Your task to perform on an android device: Go to accessibility settings Image 0: 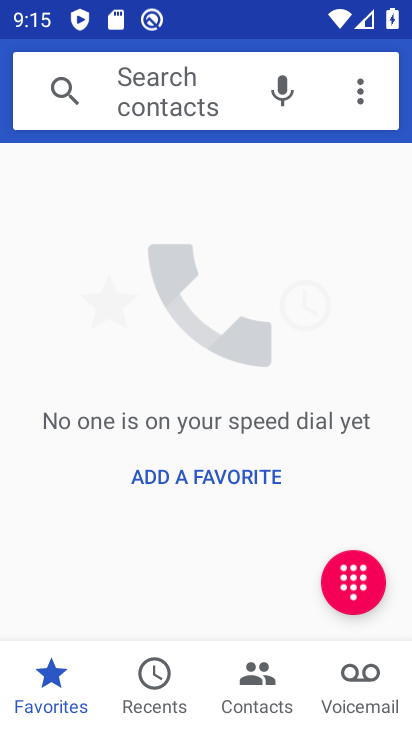
Step 0: press home button
Your task to perform on an android device: Go to accessibility settings Image 1: 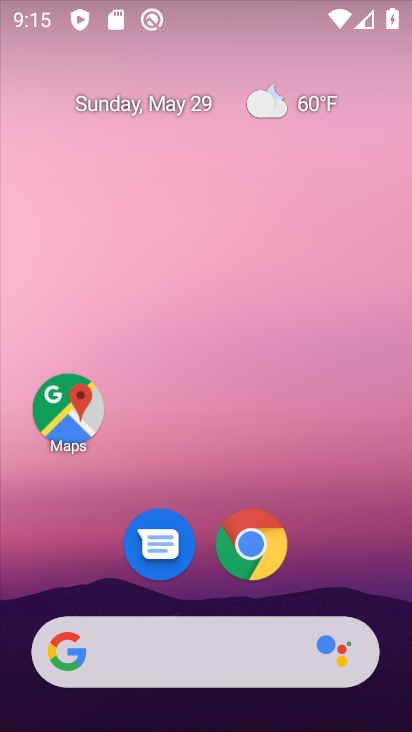
Step 1: drag from (314, 566) to (352, 73)
Your task to perform on an android device: Go to accessibility settings Image 2: 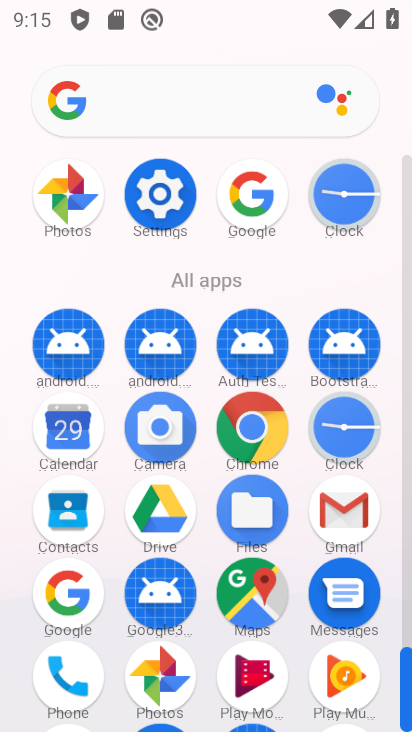
Step 2: click (153, 189)
Your task to perform on an android device: Go to accessibility settings Image 3: 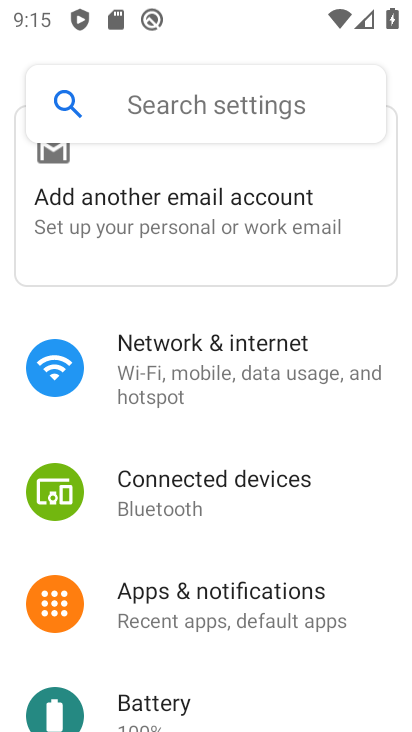
Step 3: drag from (252, 627) to (286, 83)
Your task to perform on an android device: Go to accessibility settings Image 4: 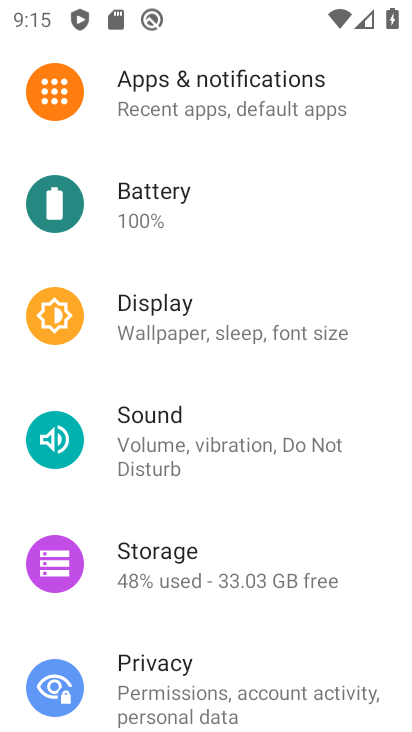
Step 4: drag from (233, 638) to (285, 36)
Your task to perform on an android device: Go to accessibility settings Image 5: 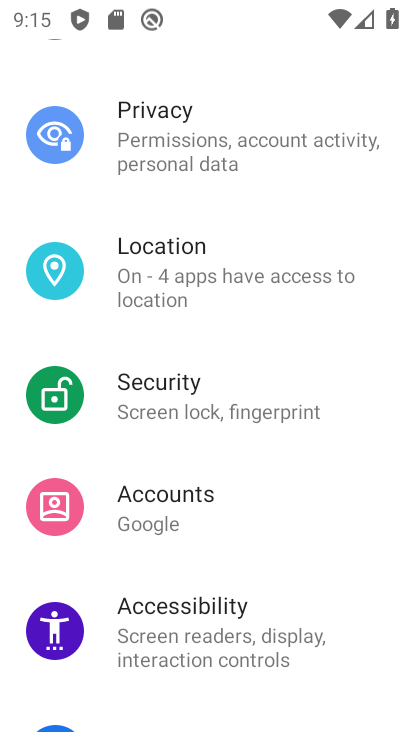
Step 5: click (195, 653)
Your task to perform on an android device: Go to accessibility settings Image 6: 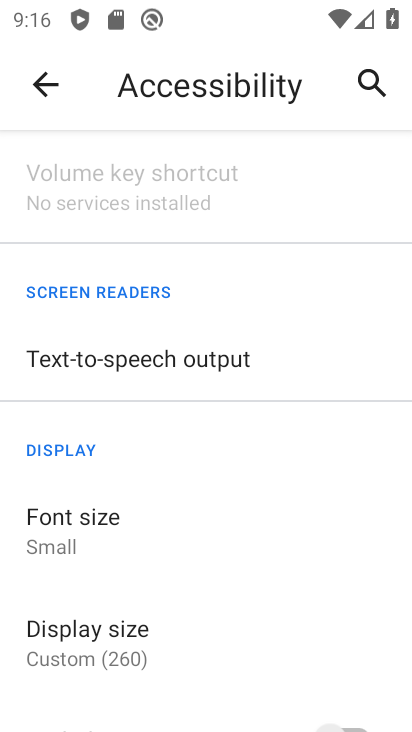
Step 6: task complete